Your task to perform on an android device: find which apps use the phone's location Image 0: 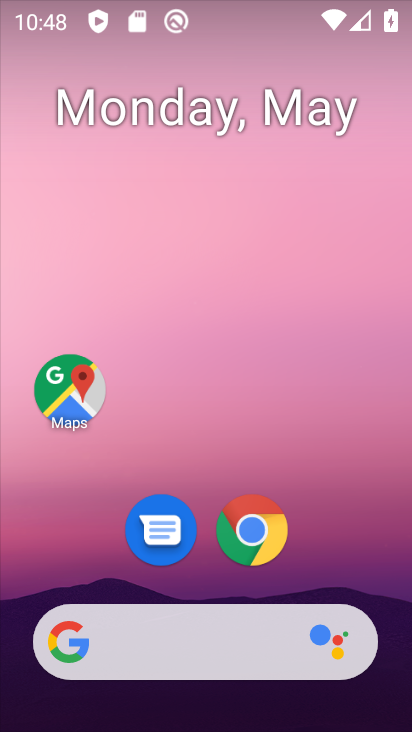
Step 0: drag from (330, 549) to (315, 20)
Your task to perform on an android device: find which apps use the phone's location Image 1: 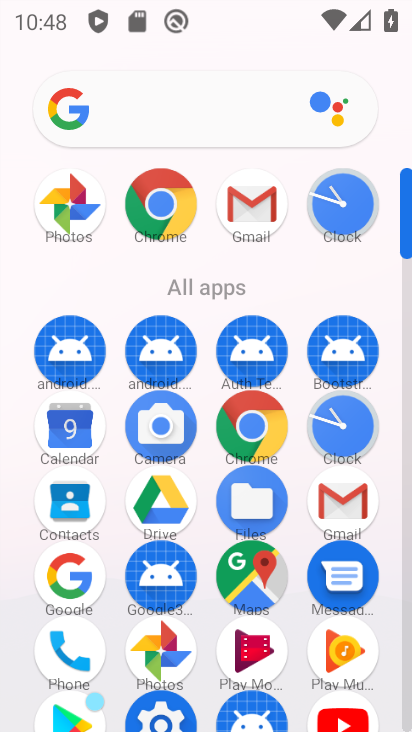
Step 1: drag from (24, 451) to (45, 226)
Your task to perform on an android device: find which apps use the phone's location Image 2: 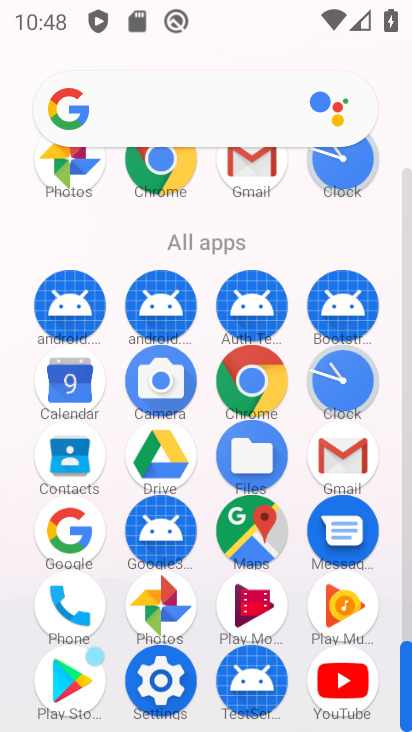
Step 2: click (45, 192)
Your task to perform on an android device: find which apps use the phone's location Image 3: 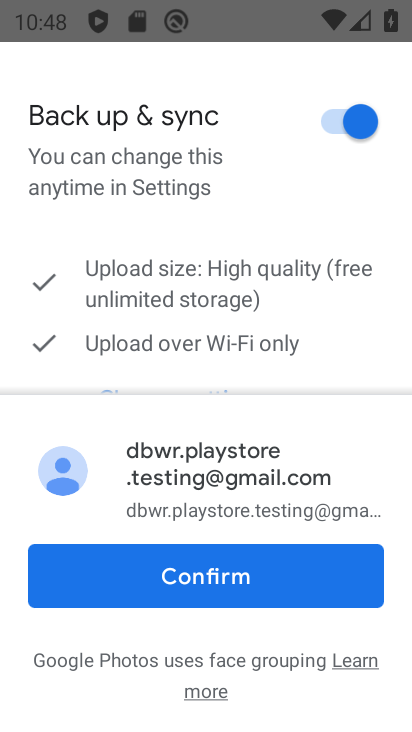
Step 3: press back button
Your task to perform on an android device: find which apps use the phone's location Image 4: 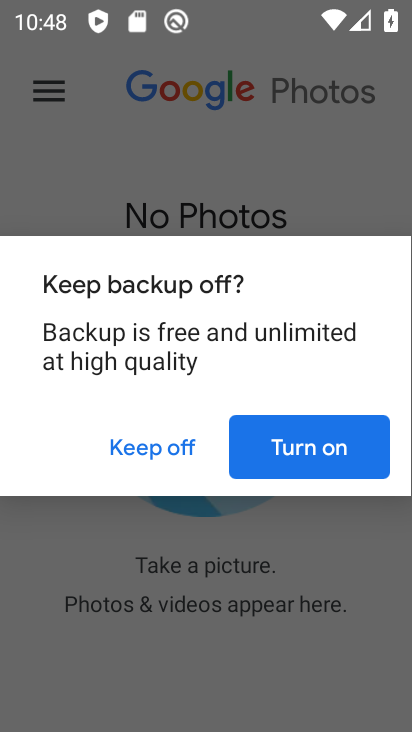
Step 4: press back button
Your task to perform on an android device: find which apps use the phone's location Image 5: 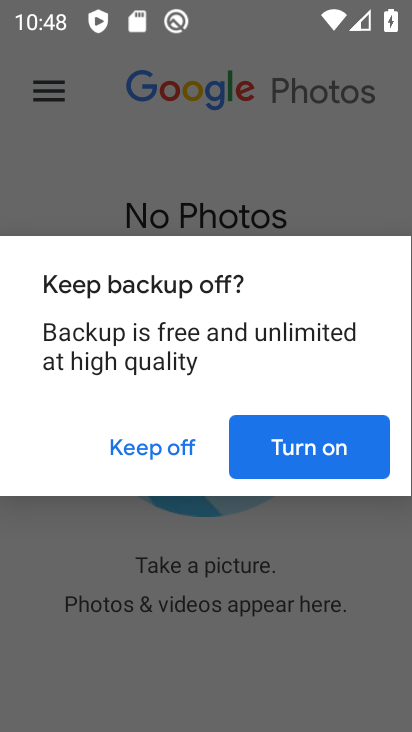
Step 5: press home button
Your task to perform on an android device: find which apps use the phone's location Image 6: 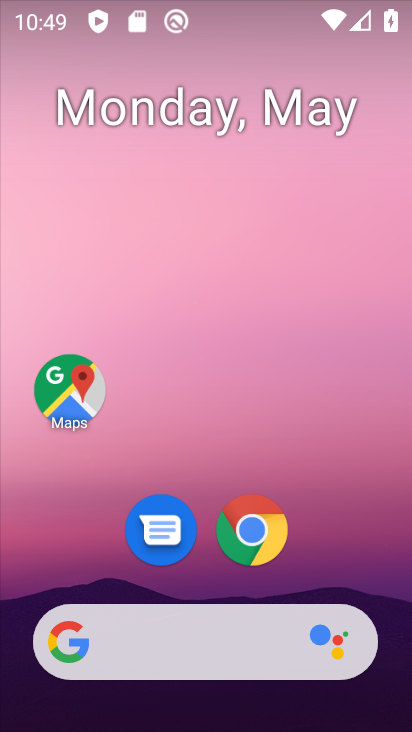
Step 6: drag from (289, 522) to (300, 35)
Your task to perform on an android device: find which apps use the phone's location Image 7: 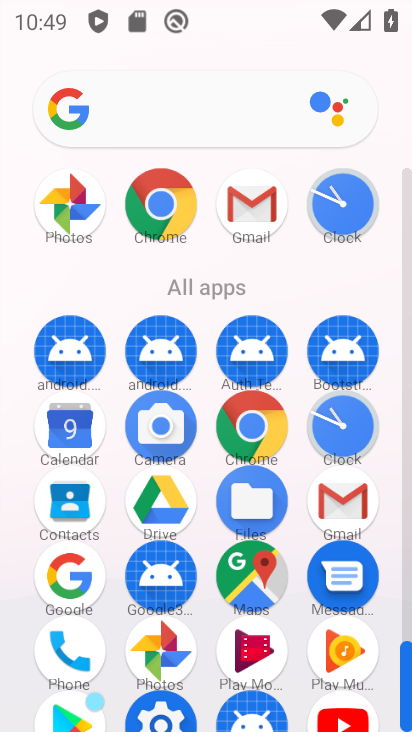
Step 7: drag from (1, 547) to (20, 171)
Your task to perform on an android device: find which apps use the phone's location Image 8: 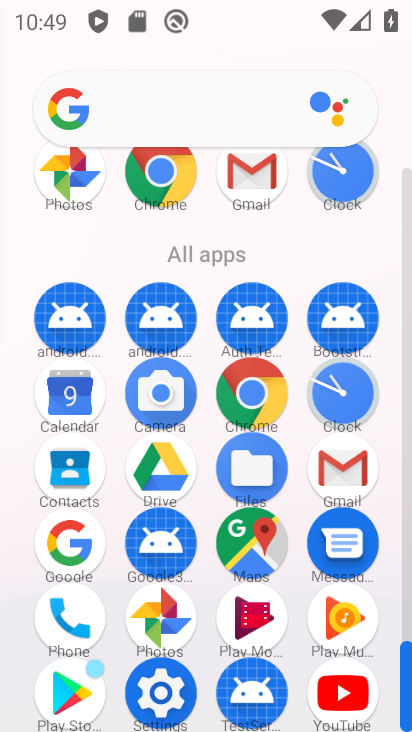
Step 8: drag from (17, 572) to (8, 265)
Your task to perform on an android device: find which apps use the phone's location Image 9: 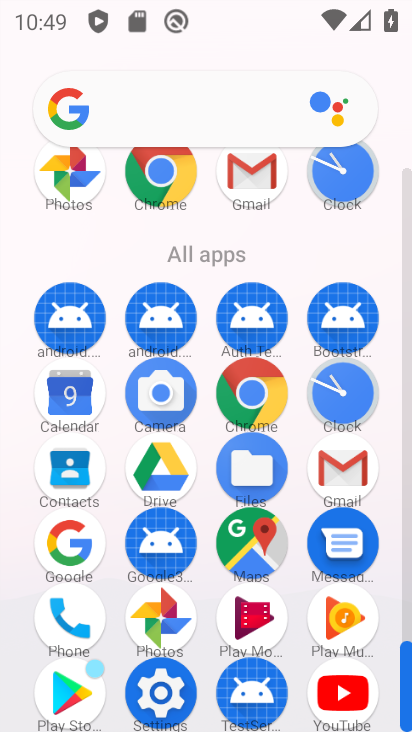
Step 9: drag from (22, 512) to (17, 223)
Your task to perform on an android device: find which apps use the phone's location Image 10: 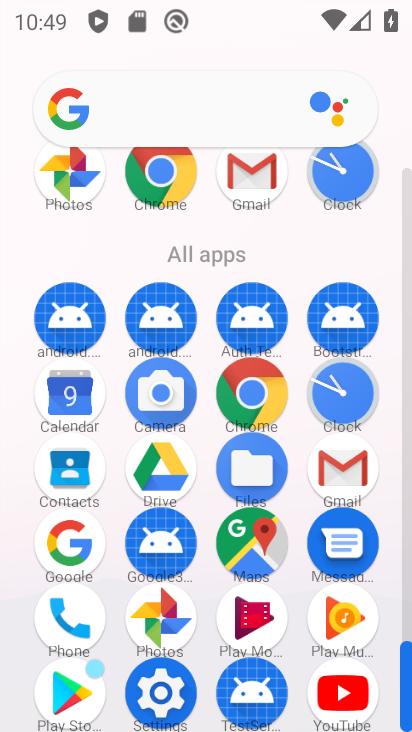
Step 10: click (163, 691)
Your task to perform on an android device: find which apps use the phone's location Image 11: 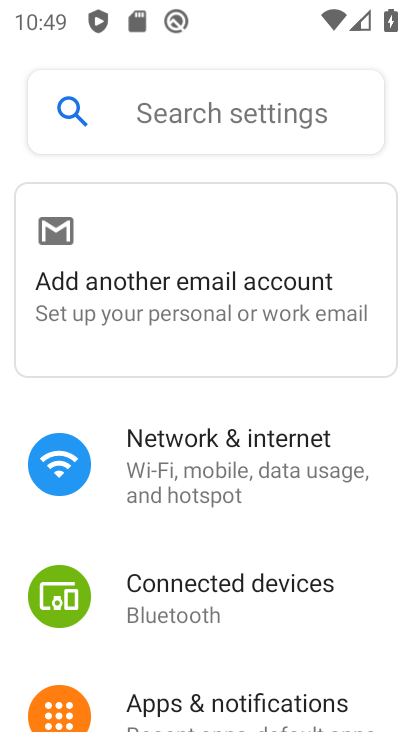
Step 11: drag from (290, 568) to (302, 189)
Your task to perform on an android device: find which apps use the phone's location Image 12: 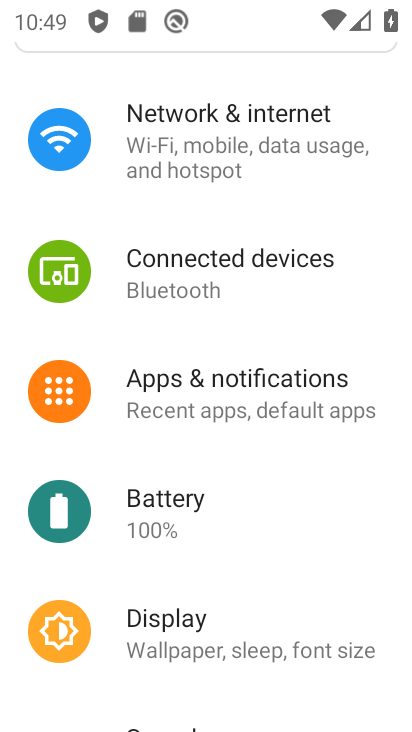
Step 12: drag from (251, 617) to (253, 208)
Your task to perform on an android device: find which apps use the phone's location Image 13: 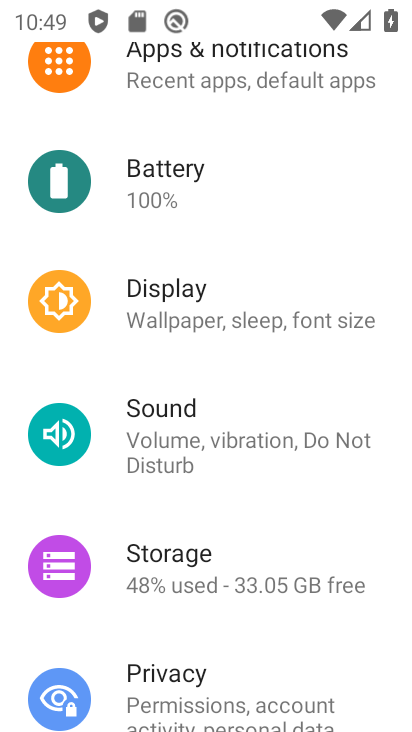
Step 13: drag from (225, 598) to (203, 166)
Your task to perform on an android device: find which apps use the phone's location Image 14: 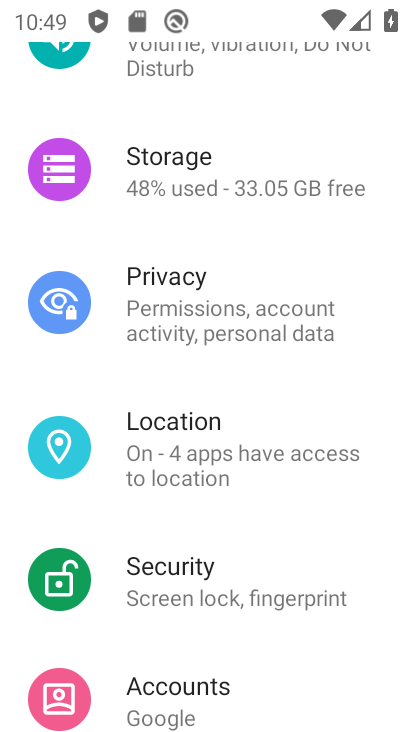
Step 14: click (200, 431)
Your task to perform on an android device: find which apps use the phone's location Image 15: 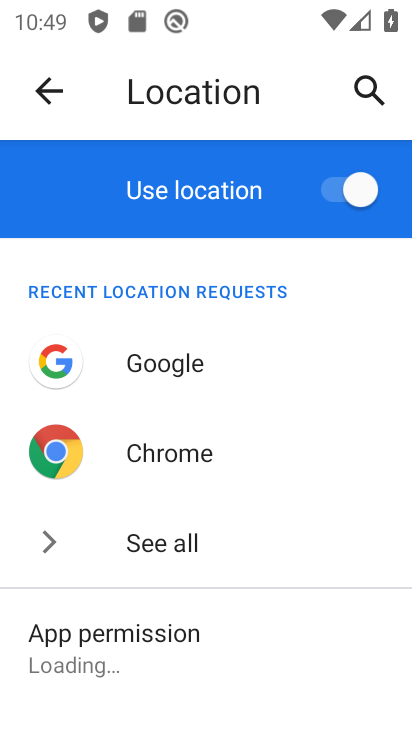
Step 15: drag from (209, 615) to (236, 295)
Your task to perform on an android device: find which apps use the phone's location Image 16: 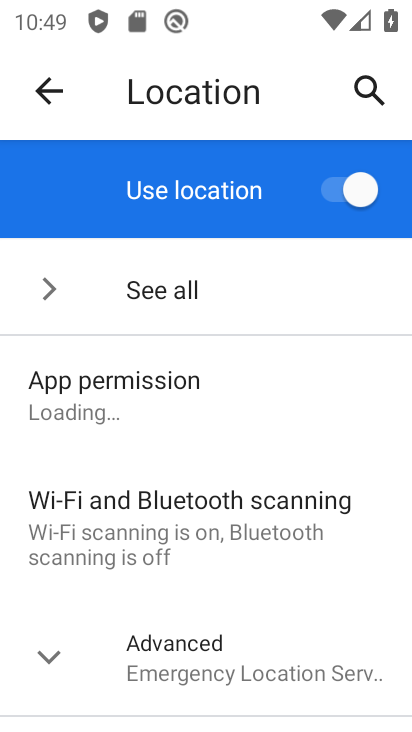
Step 16: click (167, 383)
Your task to perform on an android device: find which apps use the phone's location Image 17: 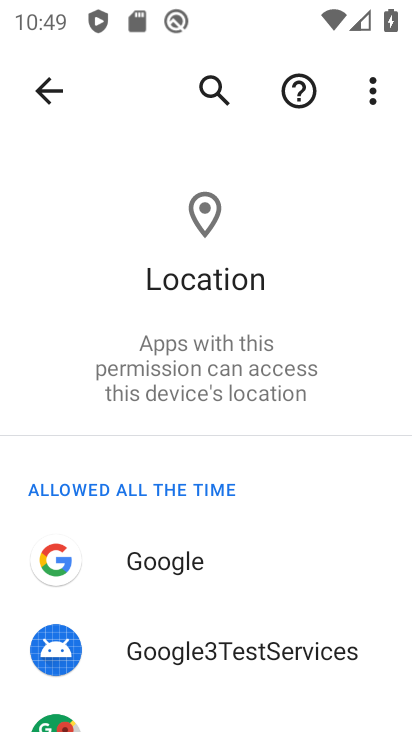
Step 17: task complete